Your task to perform on an android device: check google app version Image 0: 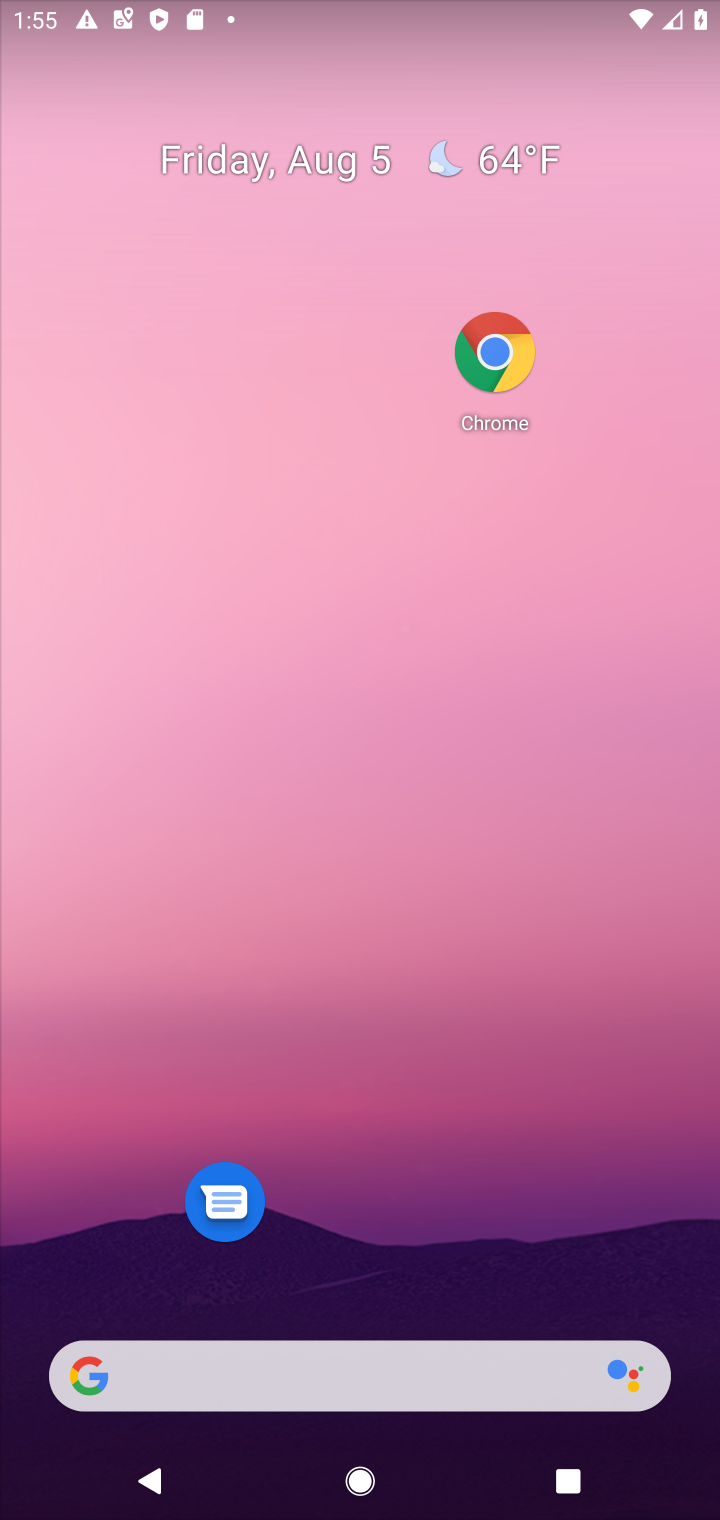
Step 0: drag from (480, 929) to (423, 91)
Your task to perform on an android device: check google app version Image 1: 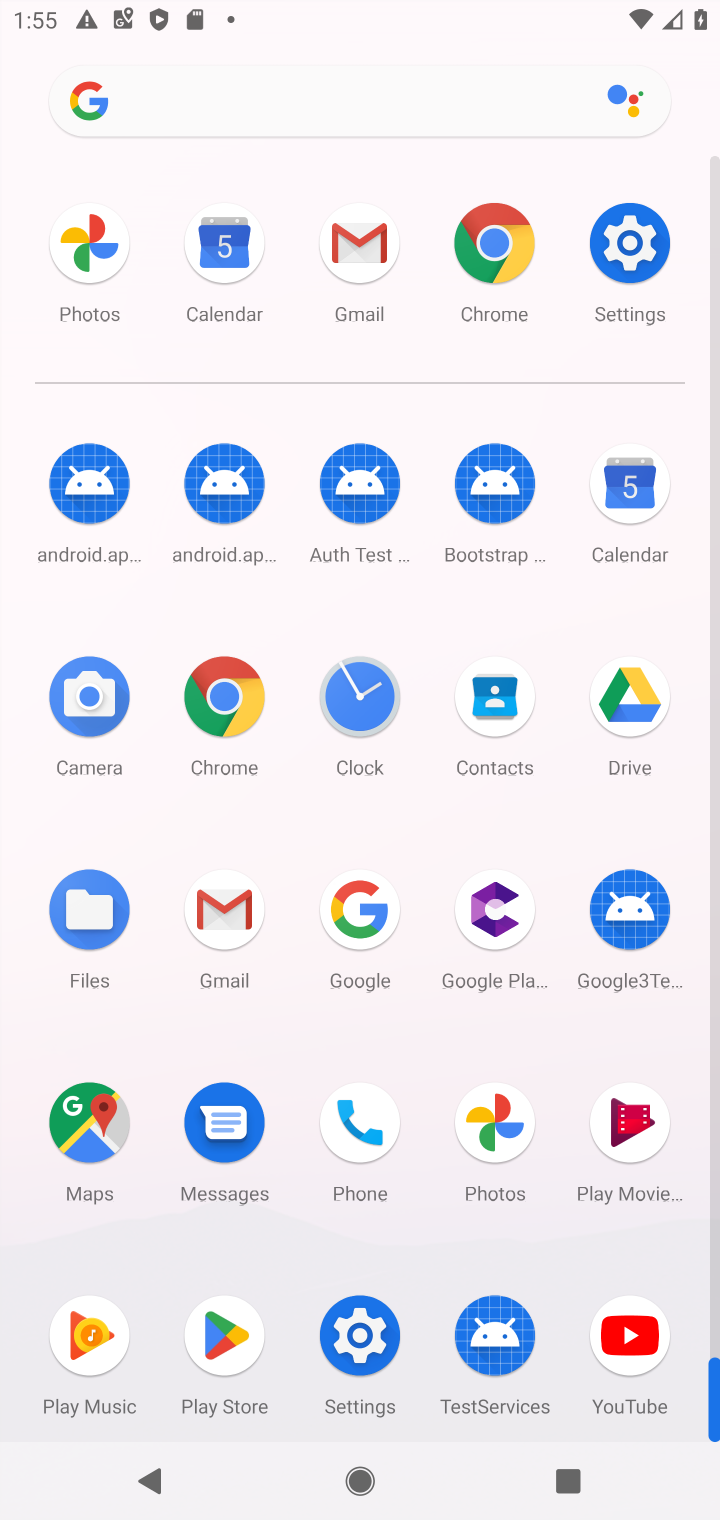
Step 1: click (357, 904)
Your task to perform on an android device: check google app version Image 2: 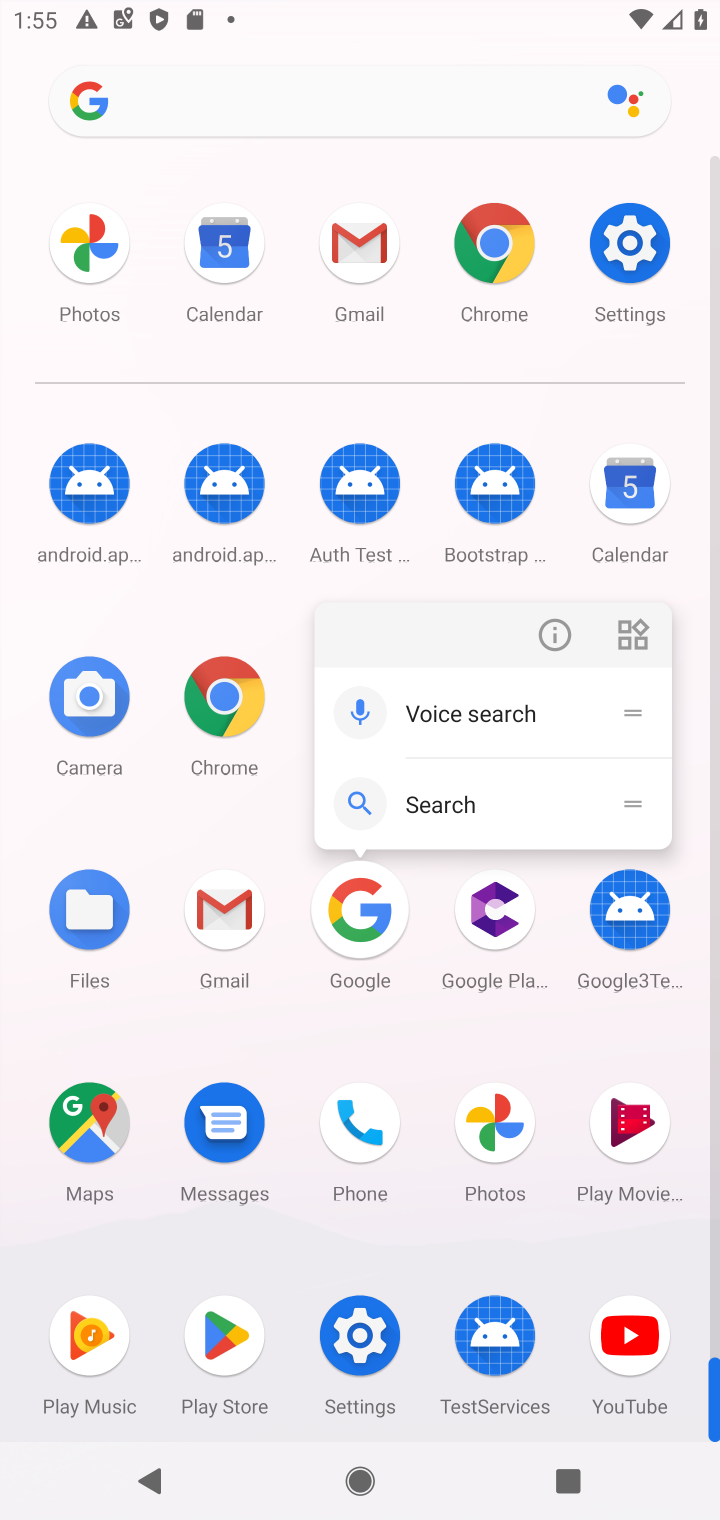
Step 2: click (561, 628)
Your task to perform on an android device: check google app version Image 3: 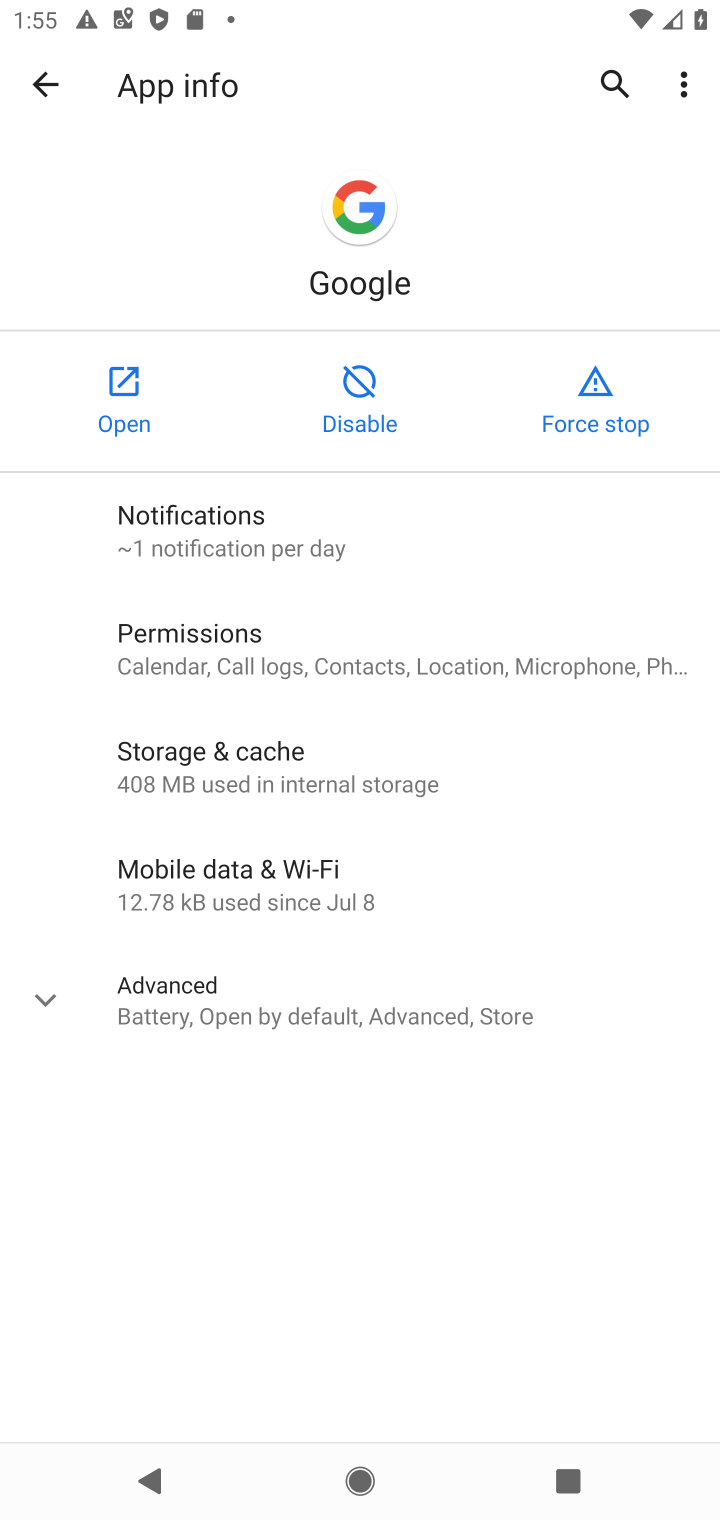
Step 3: click (209, 985)
Your task to perform on an android device: check google app version Image 4: 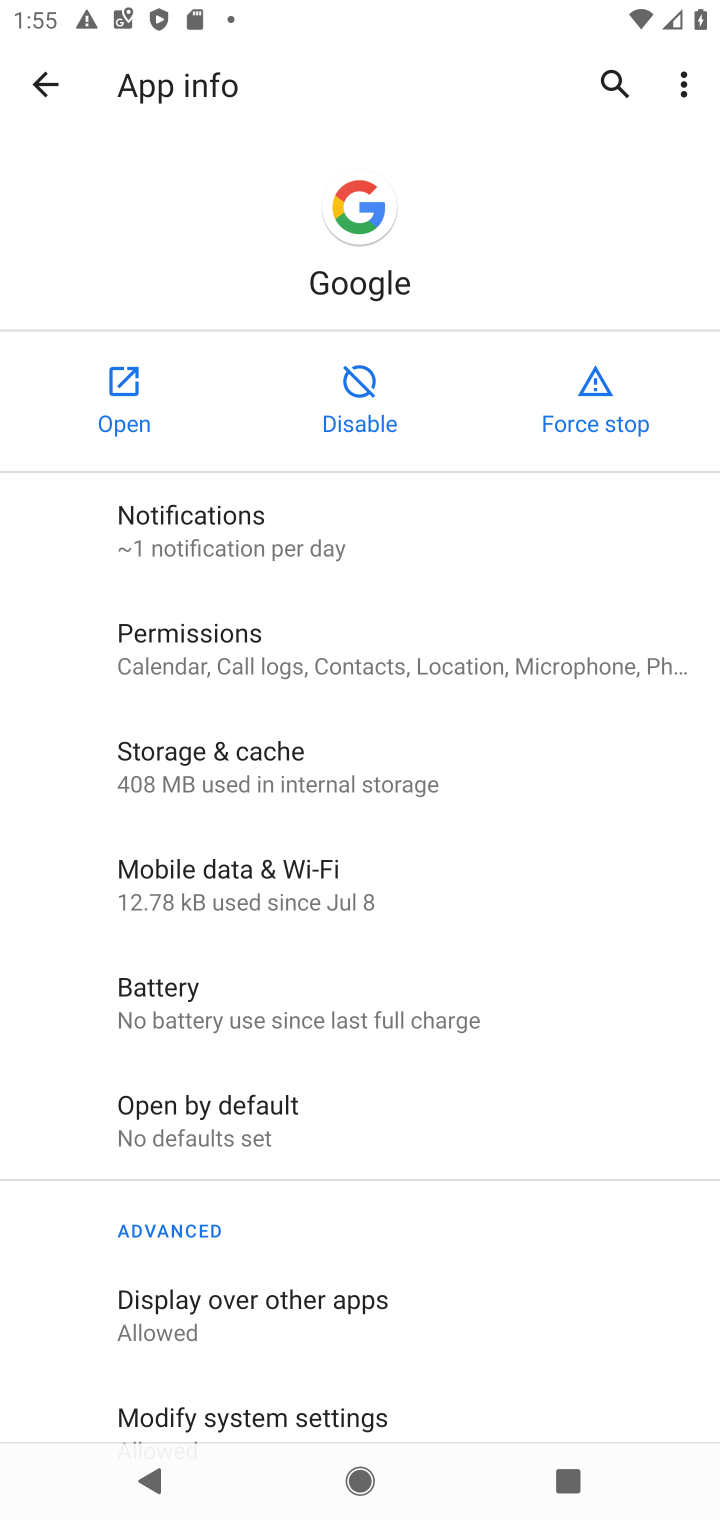
Step 4: task complete